Your task to perform on an android device: change your default location settings in chrome Image 0: 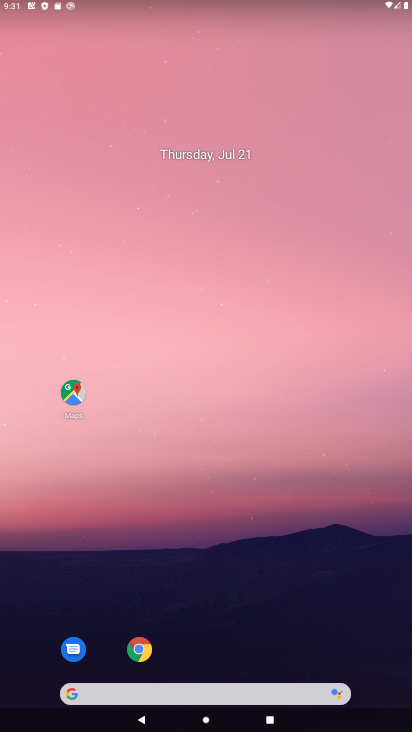
Step 0: drag from (245, 641) to (178, 39)
Your task to perform on an android device: change your default location settings in chrome Image 1: 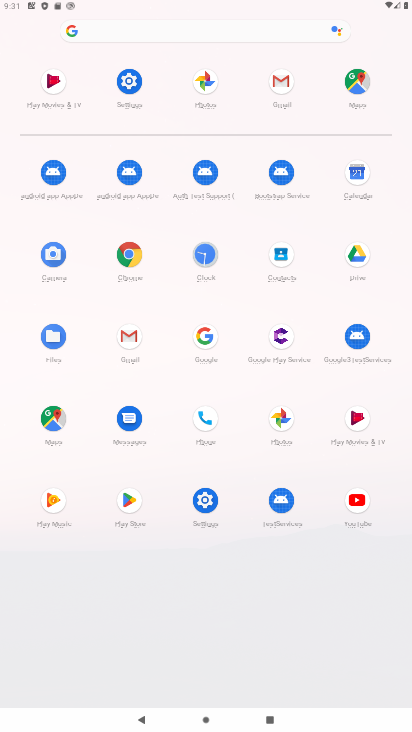
Step 1: click (132, 258)
Your task to perform on an android device: change your default location settings in chrome Image 2: 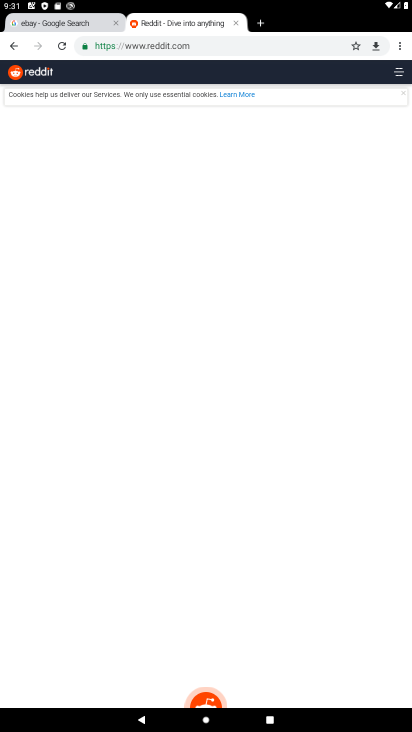
Step 2: click (394, 47)
Your task to perform on an android device: change your default location settings in chrome Image 3: 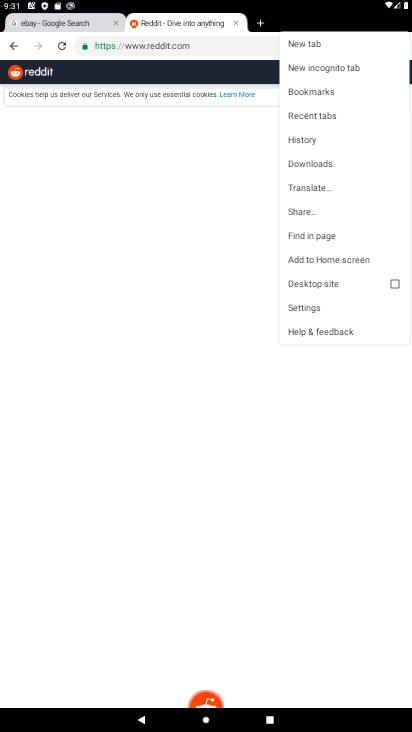
Step 3: click (309, 309)
Your task to perform on an android device: change your default location settings in chrome Image 4: 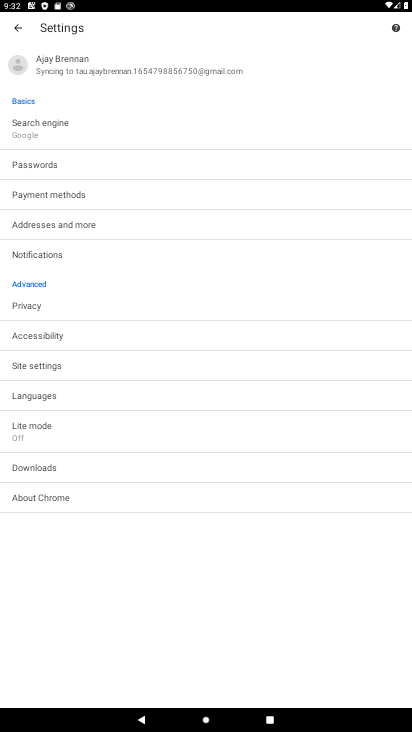
Step 4: click (53, 363)
Your task to perform on an android device: change your default location settings in chrome Image 5: 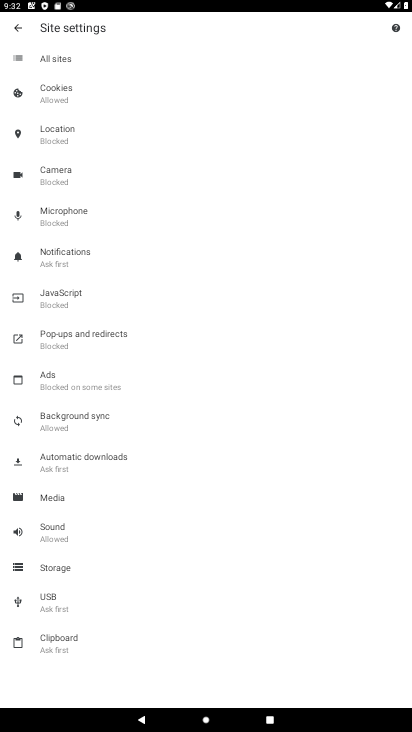
Step 5: click (73, 139)
Your task to perform on an android device: change your default location settings in chrome Image 6: 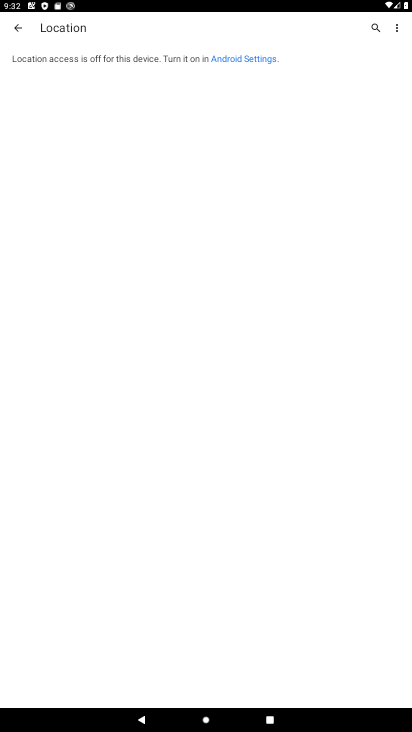
Step 6: click (245, 50)
Your task to perform on an android device: change your default location settings in chrome Image 7: 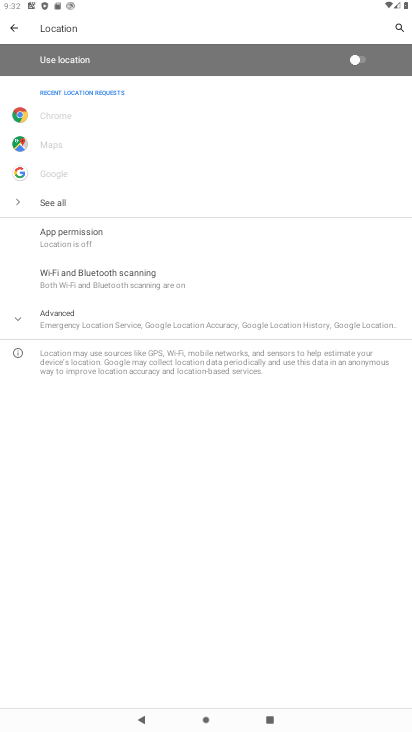
Step 7: click (374, 59)
Your task to perform on an android device: change your default location settings in chrome Image 8: 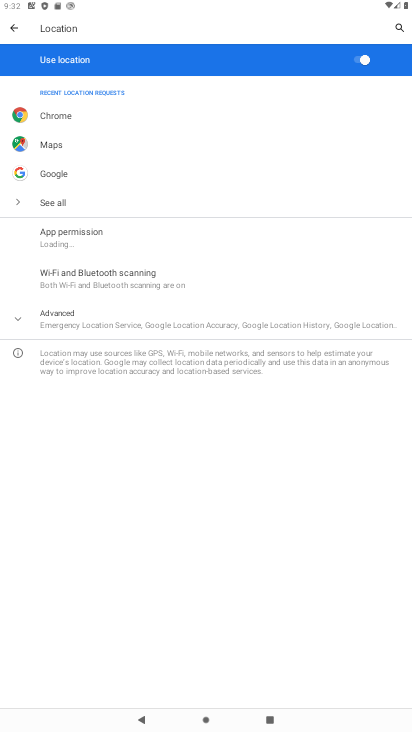
Step 8: task complete